Your task to perform on an android device: open the mobile data screen to see how much data has been used Image 0: 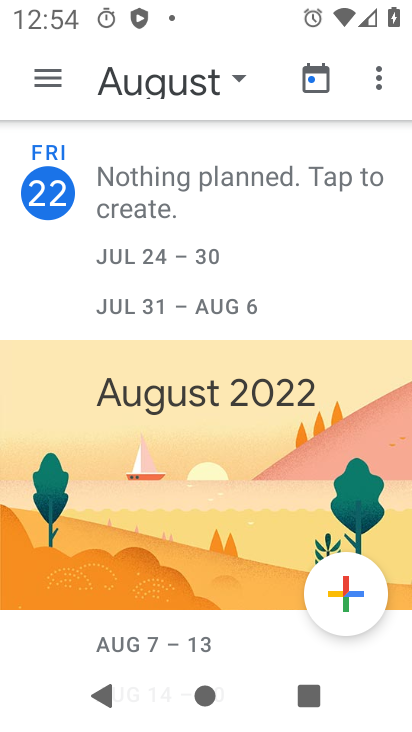
Step 0: press home button
Your task to perform on an android device: open the mobile data screen to see how much data has been used Image 1: 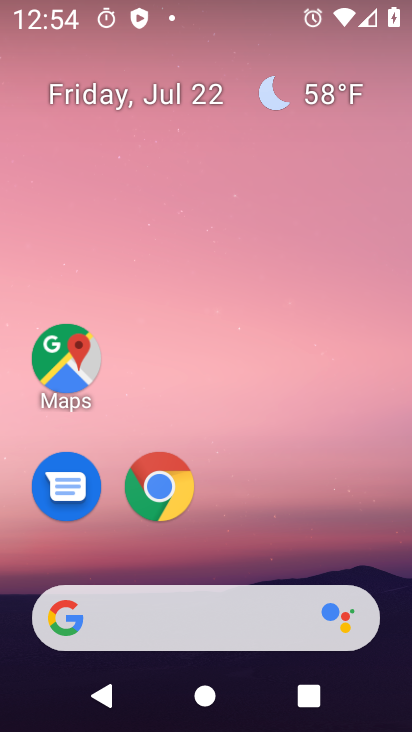
Step 1: drag from (358, 545) to (371, 173)
Your task to perform on an android device: open the mobile data screen to see how much data has been used Image 2: 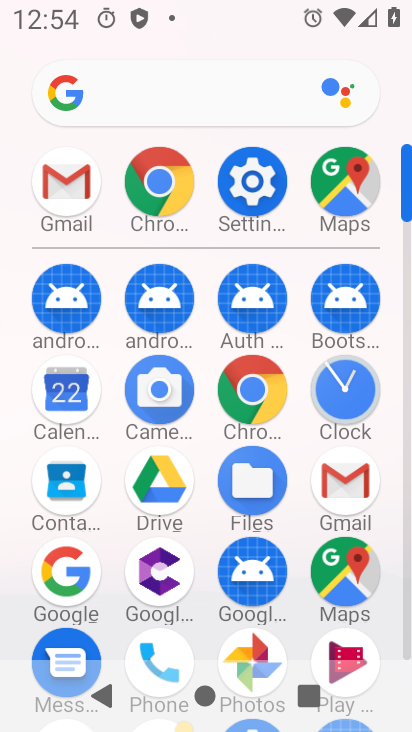
Step 2: click (259, 184)
Your task to perform on an android device: open the mobile data screen to see how much data has been used Image 3: 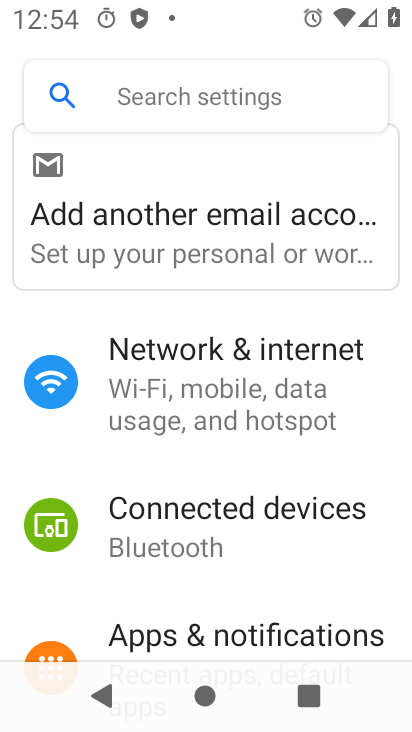
Step 3: drag from (345, 552) to (345, 481)
Your task to perform on an android device: open the mobile data screen to see how much data has been used Image 4: 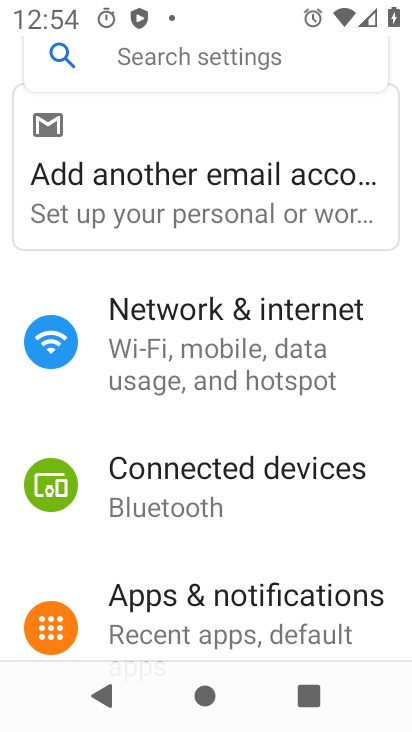
Step 4: drag from (348, 521) to (342, 457)
Your task to perform on an android device: open the mobile data screen to see how much data has been used Image 5: 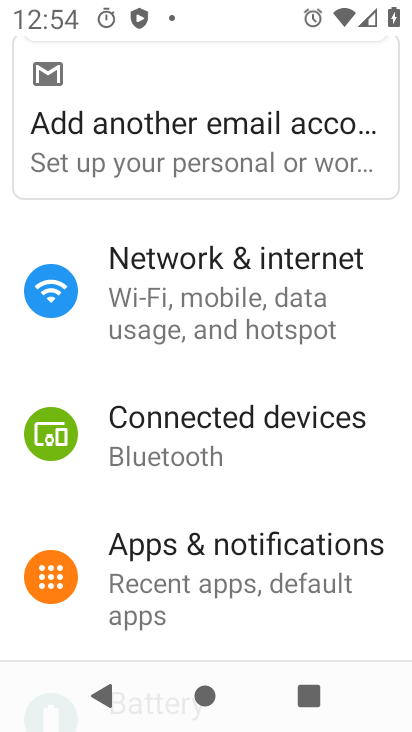
Step 5: drag from (342, 524) to (337, 457)
Your task to perform on an android device: open the mobile data screen to see how much data has been used Image 6: 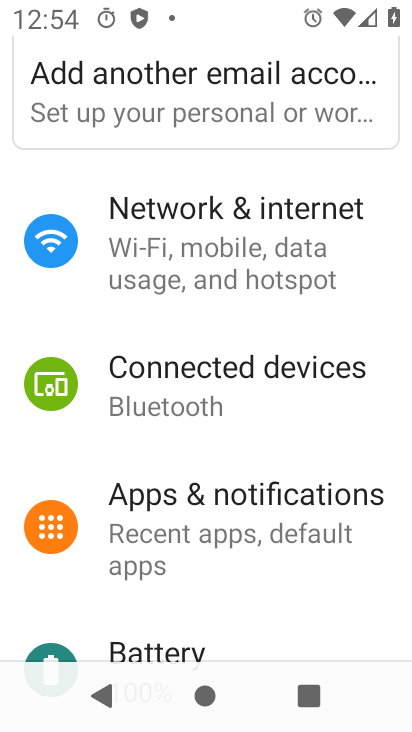
Step 6: drag from (334, 526) to (330, 459)
Your task to perform on an android device: open the mobile data screen to see how much data has been used Image 7: 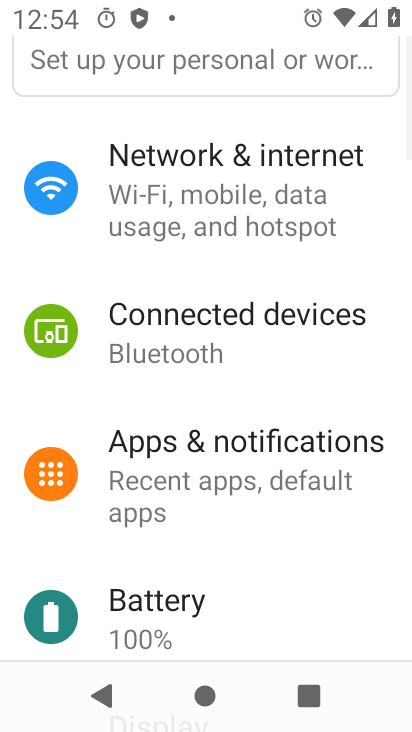
Step 7: drag from (333, 538) to (320, 455)
Your task to perform on an android device: open the mobile data screen to see how much data has been used Image 8: 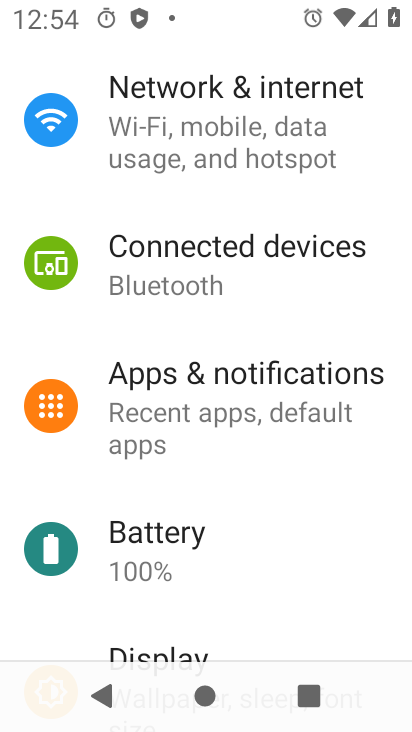
Step 8: drag from (335, 435) to (330, 385)
Your task to perform on an android device: open the mobile data screen to see how much data has been used Image 9: 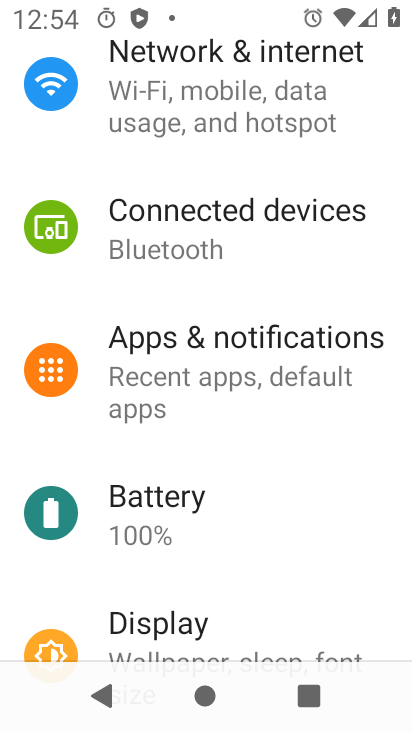
Step 9: drag from (333, 484) to (333, 412)
Your task to perform on an android device: open the mobile data screen to see how much data has been used Image 10: 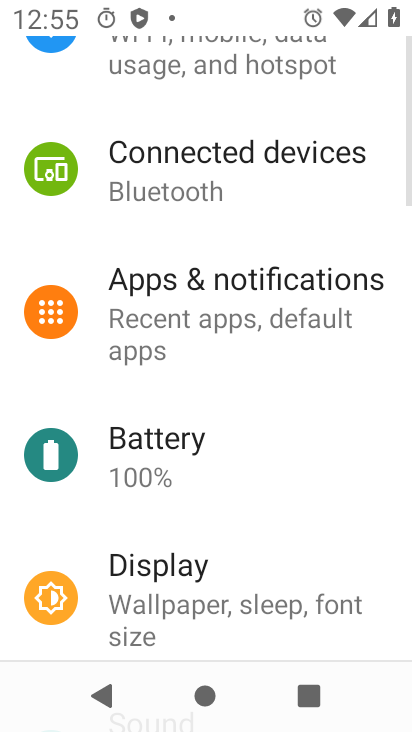
Step 10: drag from (325, 491) to (324, 408)
Your task to perform on an android device: open the mobile data screen to see how much data has been used Image 11: 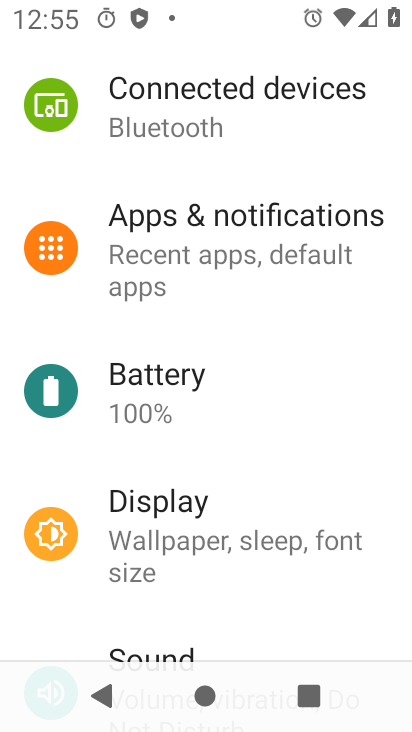
Step 11: drag from (331, 498) to (329, 377)
Your task to perform on an android device: open the mobile data screen to see how much data has been used Image 12: 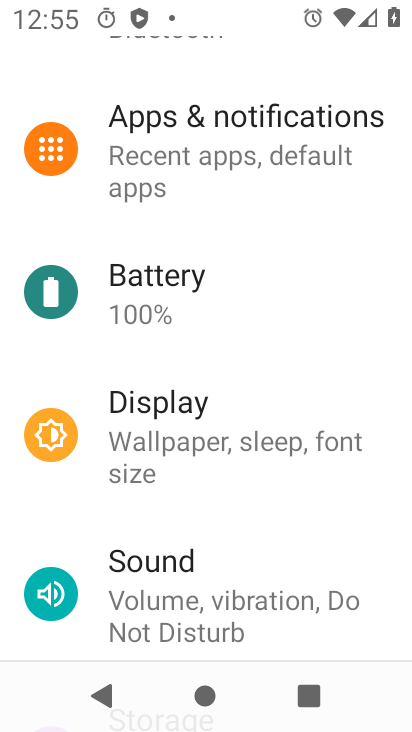
Step 12: drag from (354, 516) to (319, 377)
Your task to perform on an android device: open the mobile data screen to see how much data has been used Image 13: 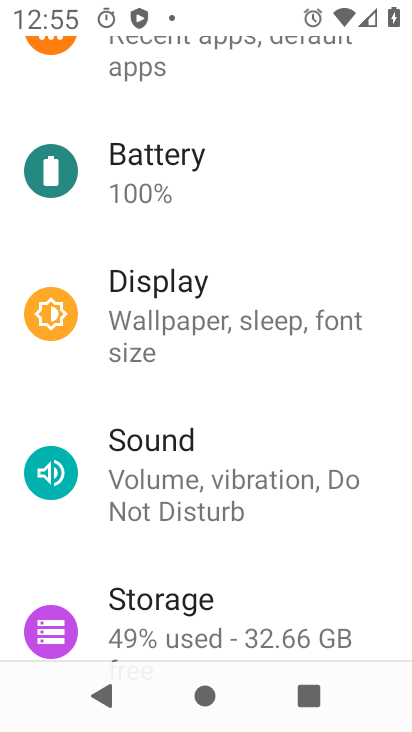
Step 13: drag from (341, 527) to (337, 404)
Your task to perform on an android device: open the mobile data screen to see how much data has been used Image 14: 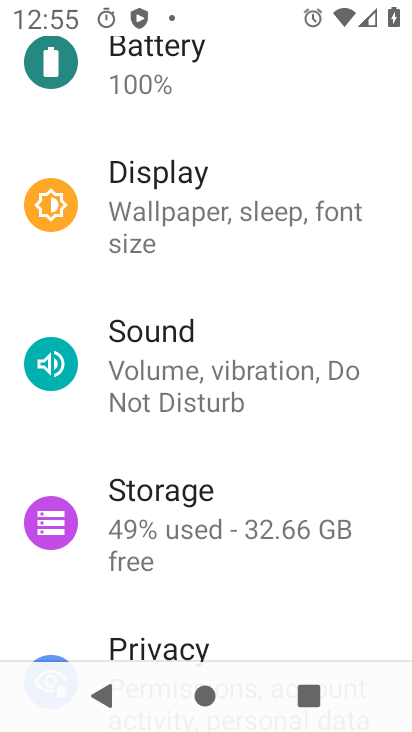
Step 14: drag from (350, 280) to (349, 394)
Your task to perform on an android device: open the mobile data screen to see how much data has been used Image 15: 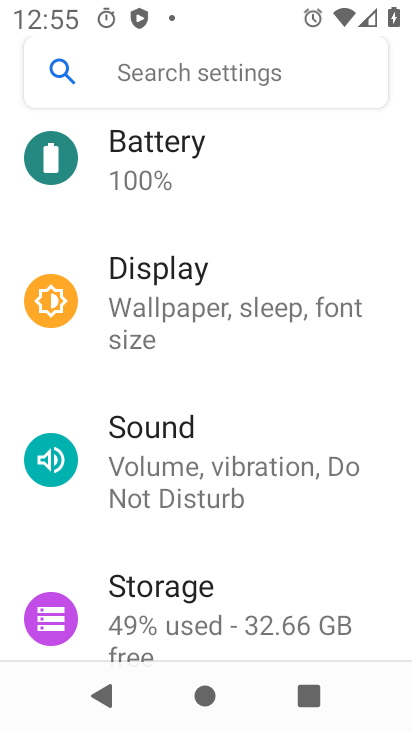
Step 15: drag from (355, 269) to (365, 365)
Your task to perform on an android device: open the mobile data screen to see how much data has been used Image 16: 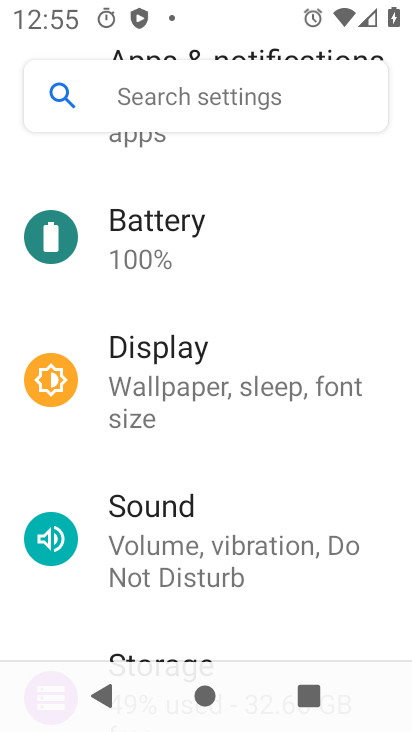
Step 16: drag from (366, 213) to (366, 339)
Your task to perform on an android device: open the mobile data screen to see how much data has been used Image 17: 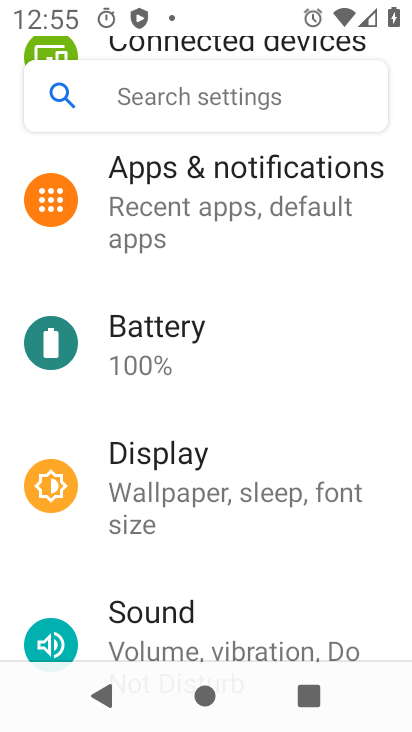
Step 17: drag from (374, 201) to (369, 337)
Your task to perform on an android device: open the mobile data screen to see how much data has been used Image 18: 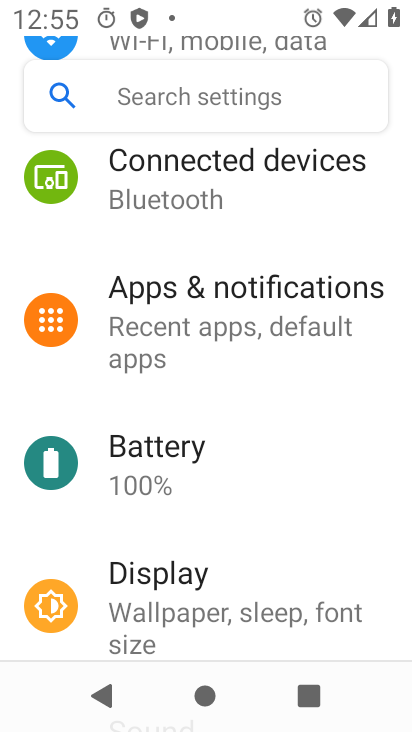
Step 18: drag from (371, 202) to (370, 330)
Your task to perform on an android device: open the mobile data screen to see how much data has been used Image 19: 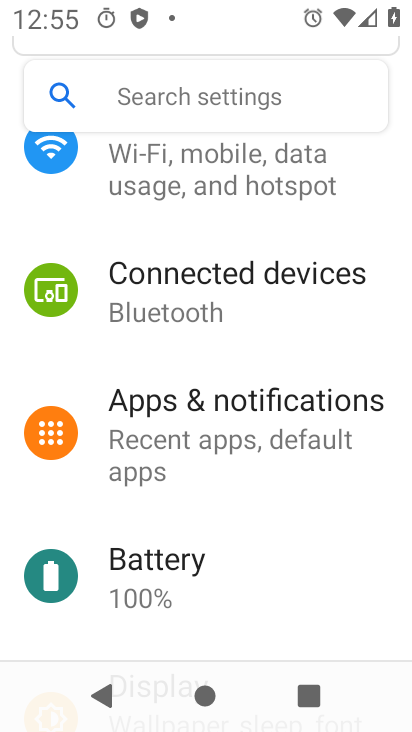
Step 19: drag from (373, 196) to (371, 328)
Your task to perform on an android device: open the mobile data screen to see how much data has been used Image 20: 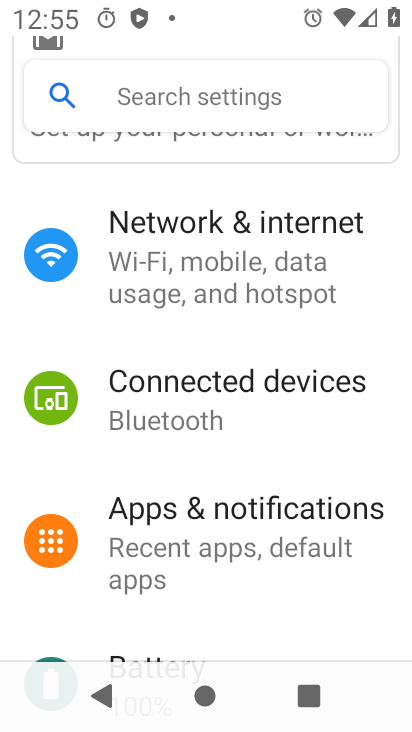
Step 20: click (343, 260)
Your task to perform on an android device: open the mobile data screen to see how much data has been used Image 21: 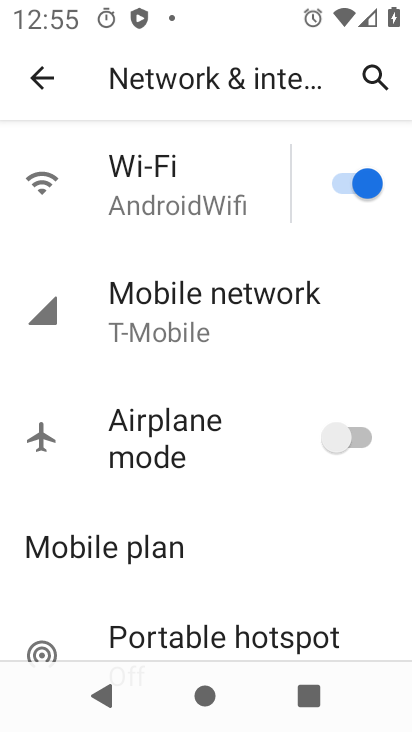
Step 21: click (292, 297)
Your task to perform on an android device: open the mobile data screen to see how much data has been used Image 22: 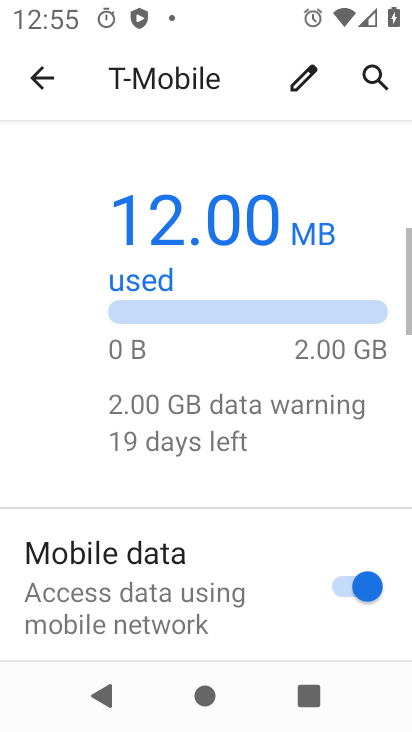
Step 22: drag from (278, 386) to (270, 303)
Your task to perform on an android device: open the mobile data screen to see how much data has been used Image 23: 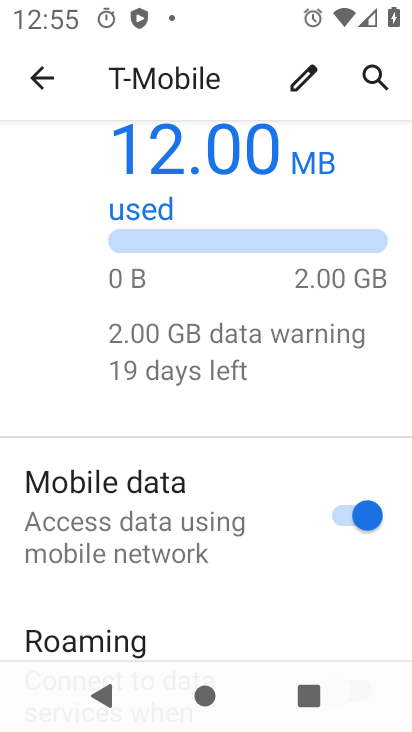
Step 23: drag from (262, 407) to (249, 305)
Your task to perform on an android device: open the mobile data screen to see how much data has been used Image 24: 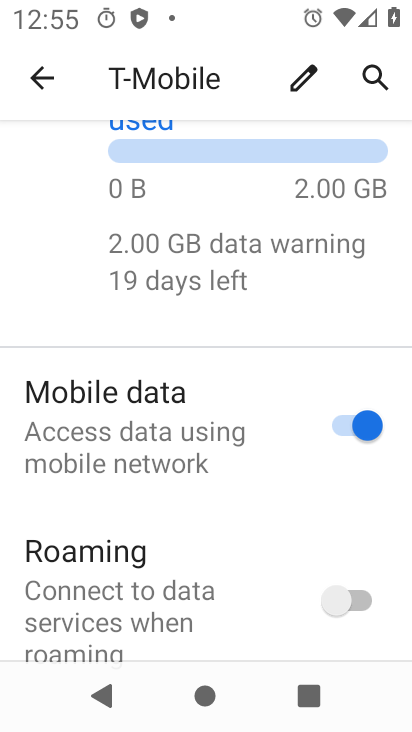
Step 24: drag from (245, 448) to (243, 319)
Your task to perform on an android device: open the mobile data screen to see how much data has been used Image 25: 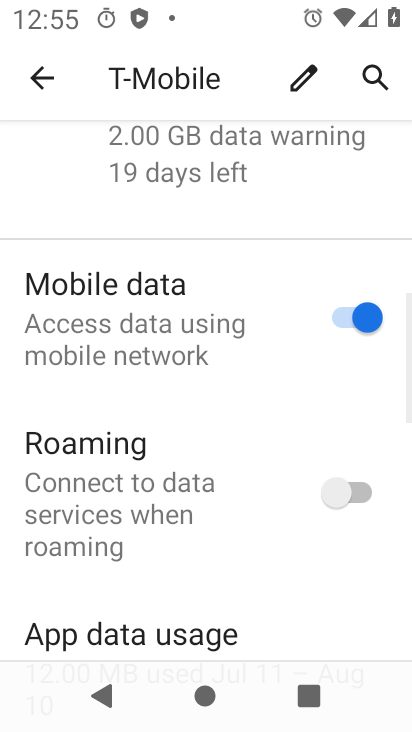
Step 25: drag from (244, 501) to (251, 368)
Your task to perform on an android device: open the mobile data screen to see how much data has been used Image 26: 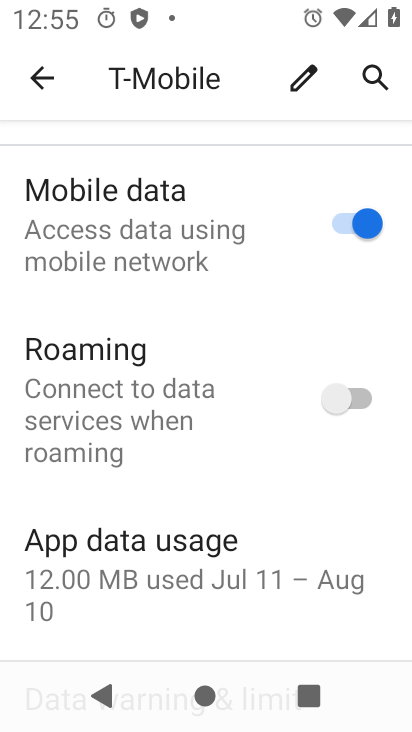
Step 26: click (255, 558)
Your task to perform on an android device: open the mobile data screen to see how much data has been used Image 27: 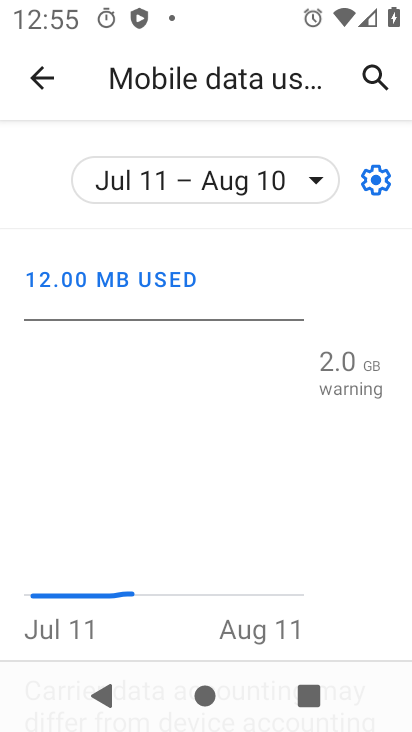
Step 27: task complete